Your task to perform on an android device: turn on improve location accuracy Image 0: 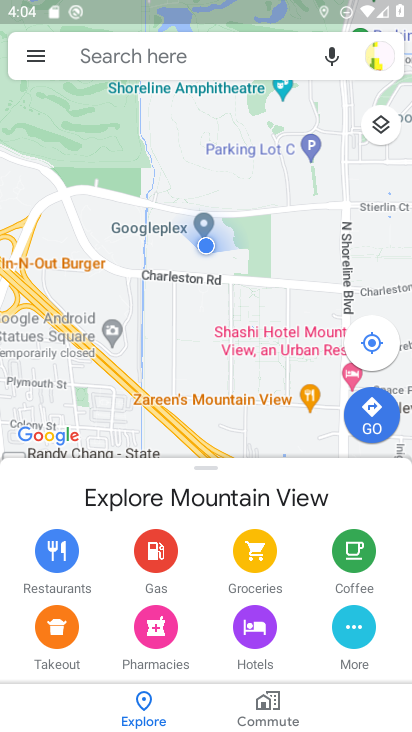
Step 0: press back button
Your task to perform on an android device: turn on improve location accuracy Image 1: 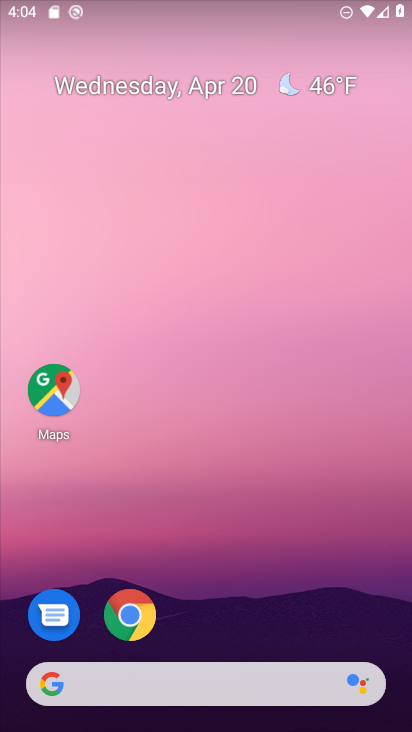
Step 1: drag from (237, 559) to (263, 80)
Your task to perform on an android device: turn on improve location accuracy Image 2: 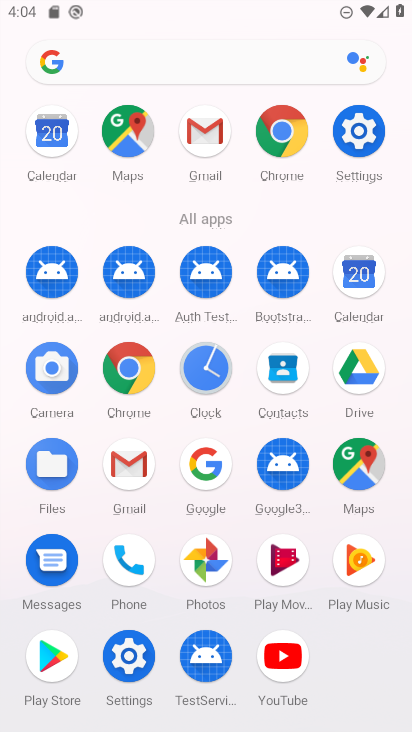
Step 2: click (361, 142)
Your task to perform on an android device: turn on improve location accuracy Image 3: 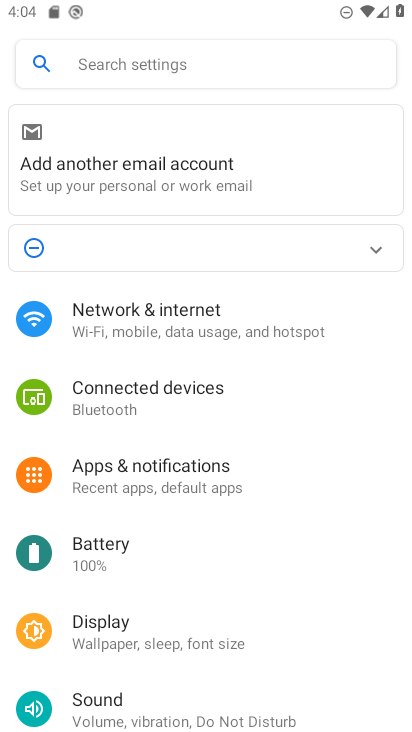
Step 3: drag from (153, 639) to (266, 110)
Your task to perform on an android device: turn on improve location accuracy Image 4: 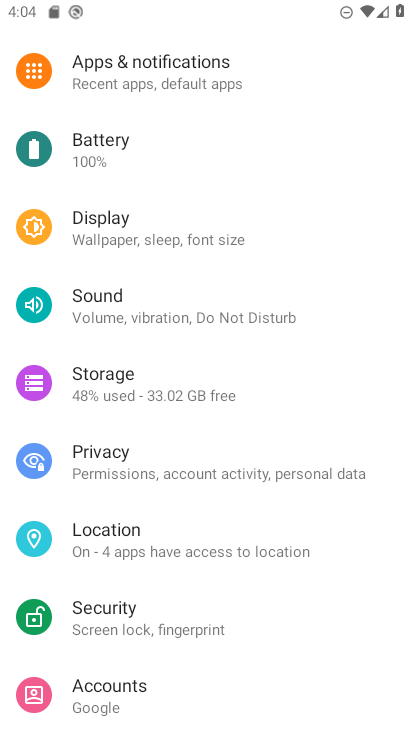
Step 4: click (182, 547)
Your task to perform on an android device: turn on improve location accuracy Image 5: 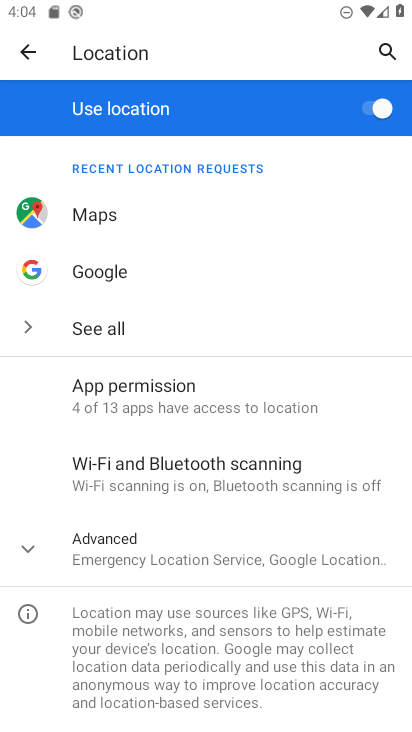
Step 5: click (181, 552)
Your task to perform on an android device: turn on improve location accuracy Image 6: 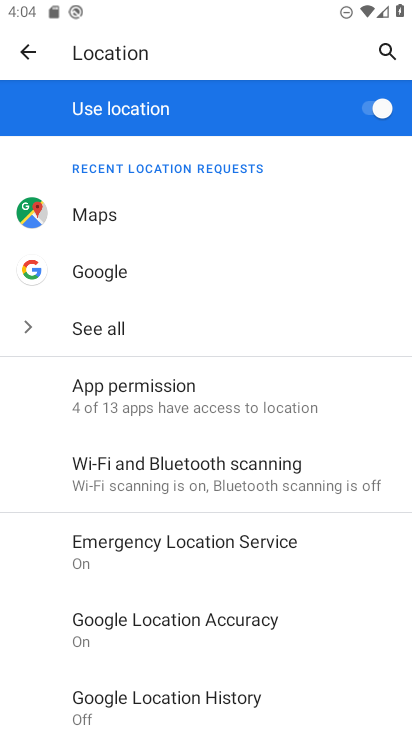
Step 6: click (188, 639)
Your task to perform on an android device: turn on improve location accuracy Image 7: 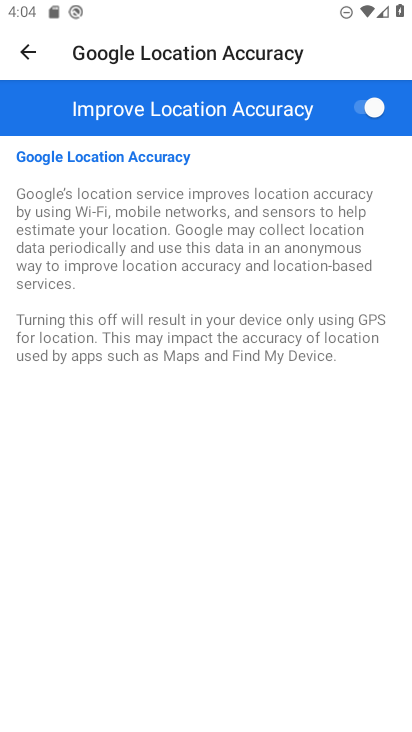
Step 7: task complete